Your task to perform on an android device: toggle location history Image 0: 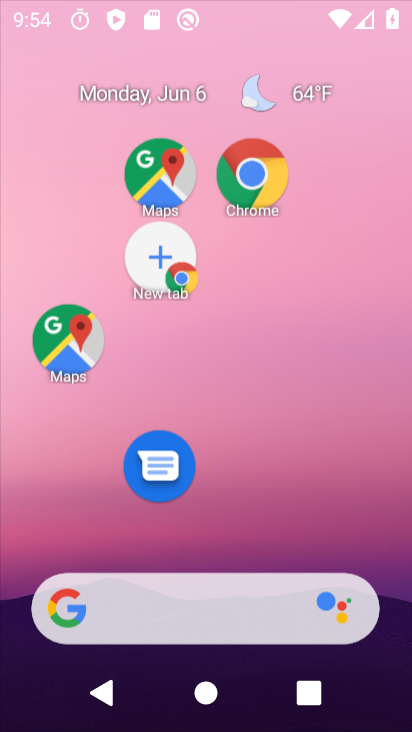
Step 0: drag from (243, 708) to (174, 199)
Your task to perform on an android device: toggle location history Image 1: 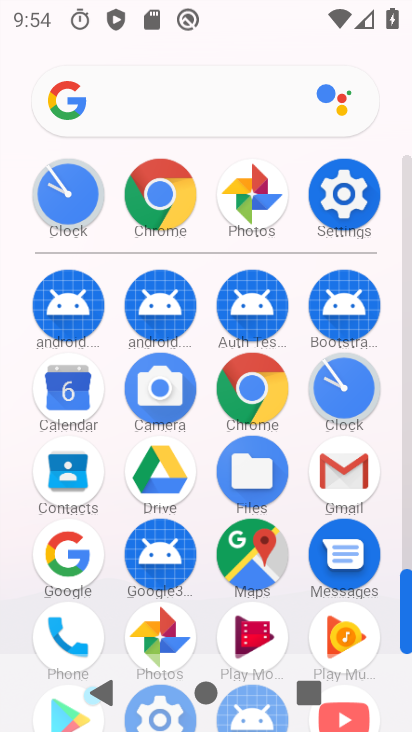
Step 1: click (344, 214)
Your task to perform on an android device: toggle location history Image 2: 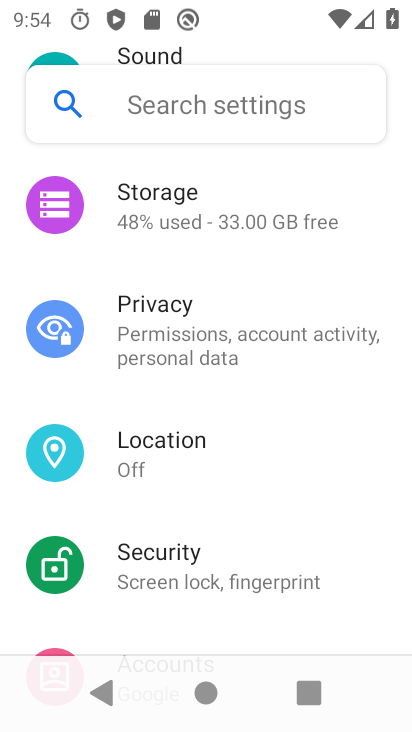
Step 2: click (151, 449)
Your task to perform on an android device: toggle location history Image 3: 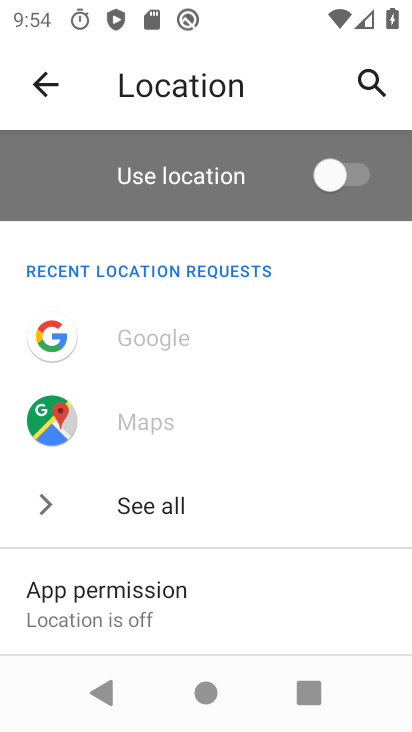
Step 3: drag from (180, 531) to (178, 168)
Your task to perform on an android device: toggle location history Image 4: 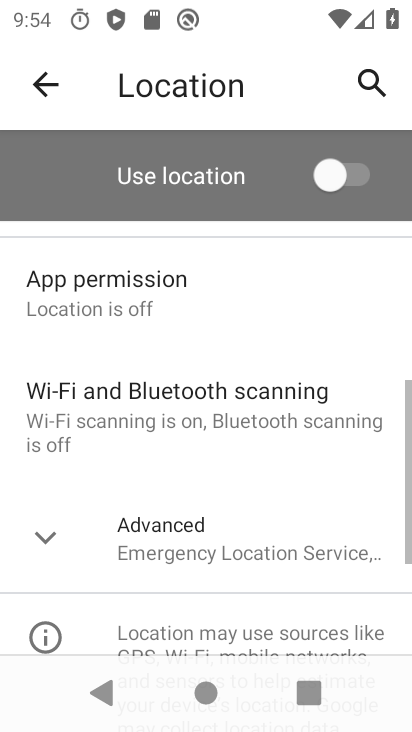
Step 4: drag from (239, 485) to (261, 250)
Your task to perform on an android device: toggle location history Image 5: 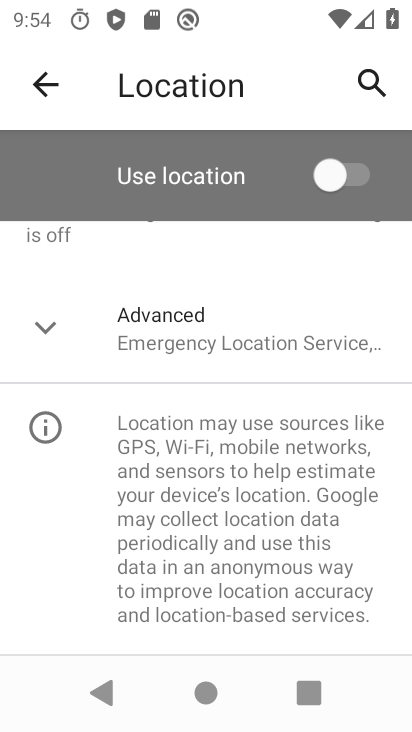
Step 5: click (167, 332)
Your task to perform on an android device: toggle location history Image 6: 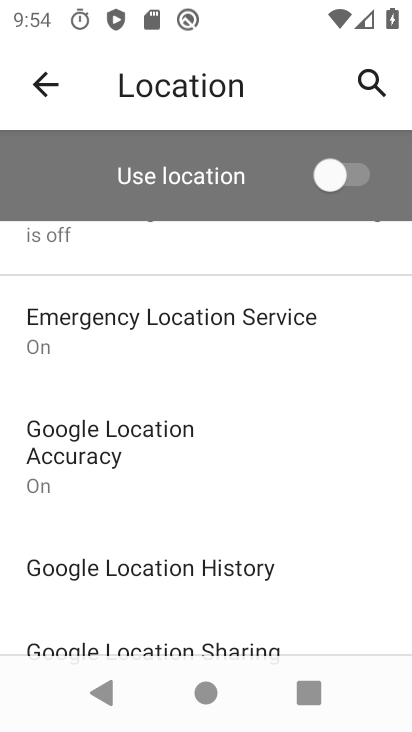
Step 6: drag from (182, 567) to (193, 320)
Your task to perform on an android device: toggle location history Image 7: 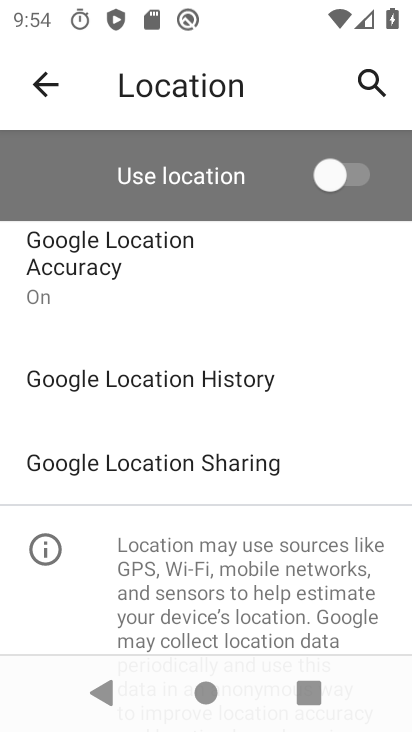
Step 7: click (132, 390)
Your task to perform on an android device: toggle location history Image 8: 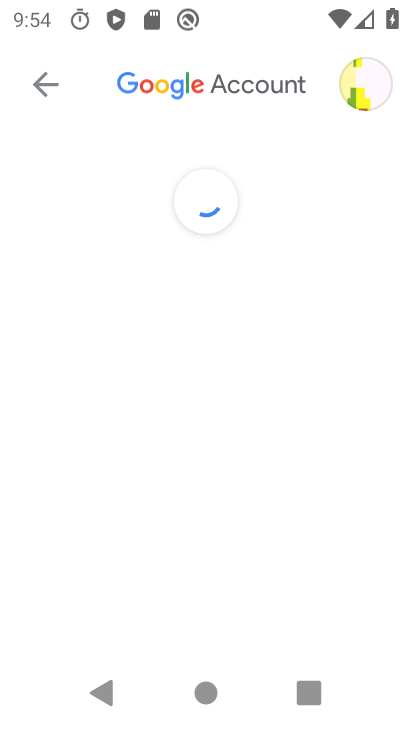
Step 8: task complete